Your task to perform on an android device: Open accessibility settings Image 0: 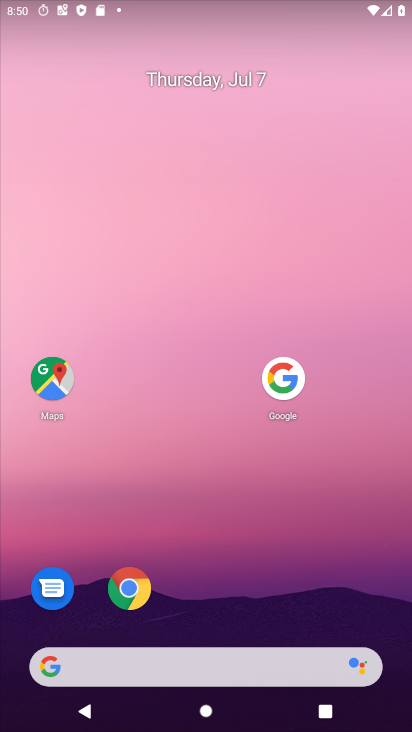
Step 0: drag from (179, 635) to (339, 82)
Your task to perform on an android device: Open accessibility settings Image 1: 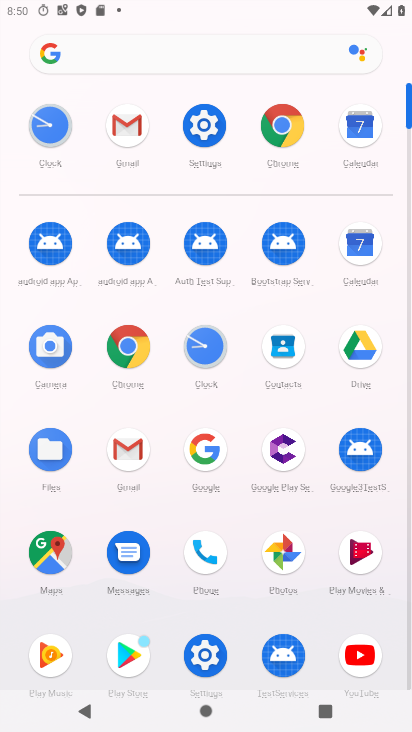
Step 1: click (199, 135)
Your task to perform on an android device: Open accessibility settings Image 2: 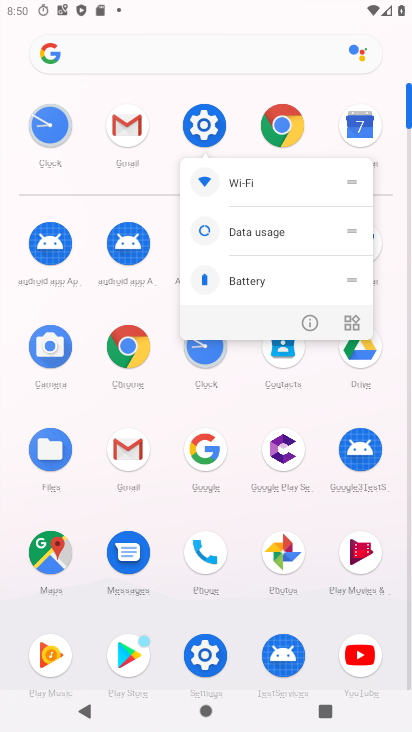
Step 2: click (206, 124)
Your task to perform on an android device: Open accessibility settings Image 3: 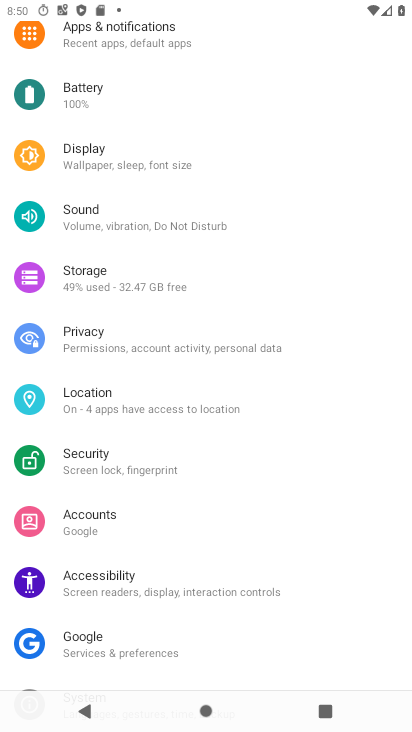
Step 3: click (134, 591)
Your task to perform on an android device: Open accessibility settings Image 4: 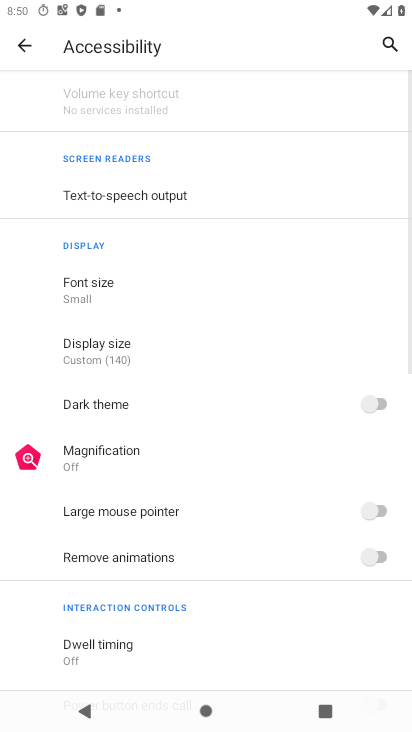
Step 4: task complete